Your task to perform on an android device: change the clock display to show seconds Image 0: 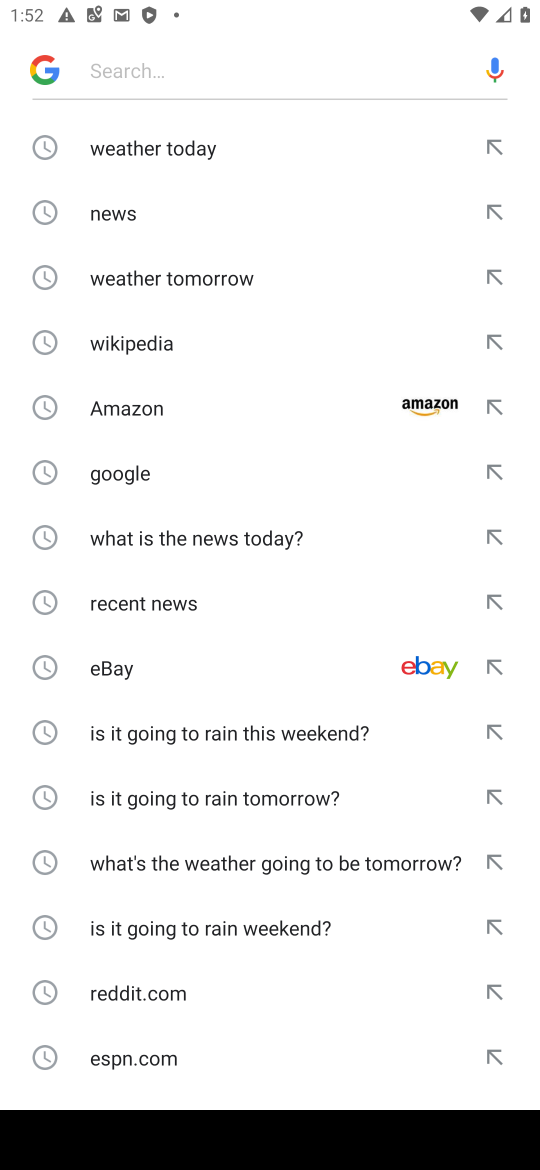
Step 0: press home button
Your task to perform on an android device: change the clock display to show seconds Image 1: 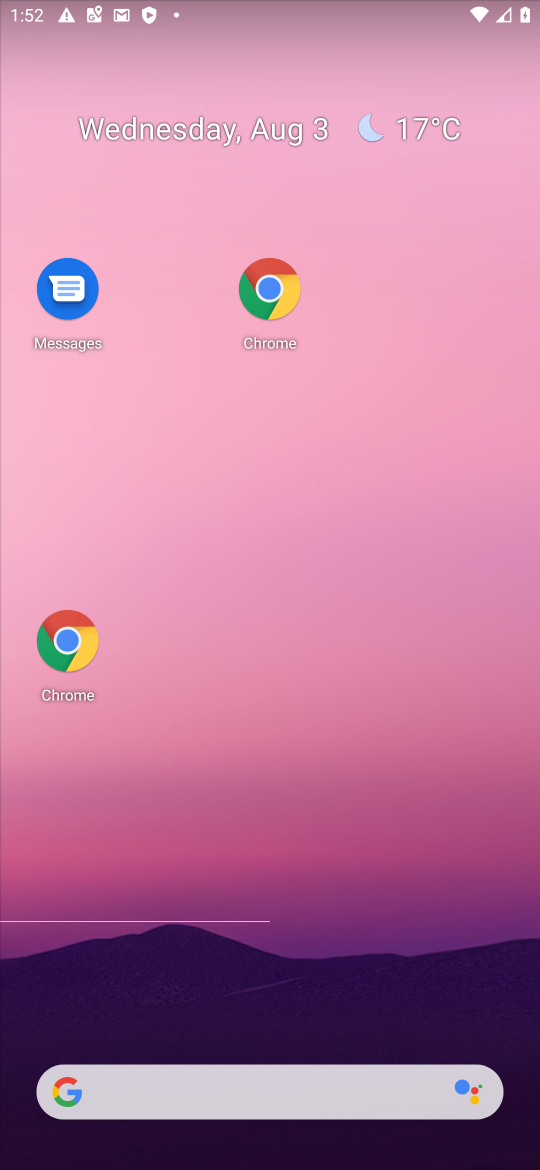
Step 1: drag from (302, 1043) to (304, 219)
Your task to perform on an android device: change the clock display to show seconds Image 2: 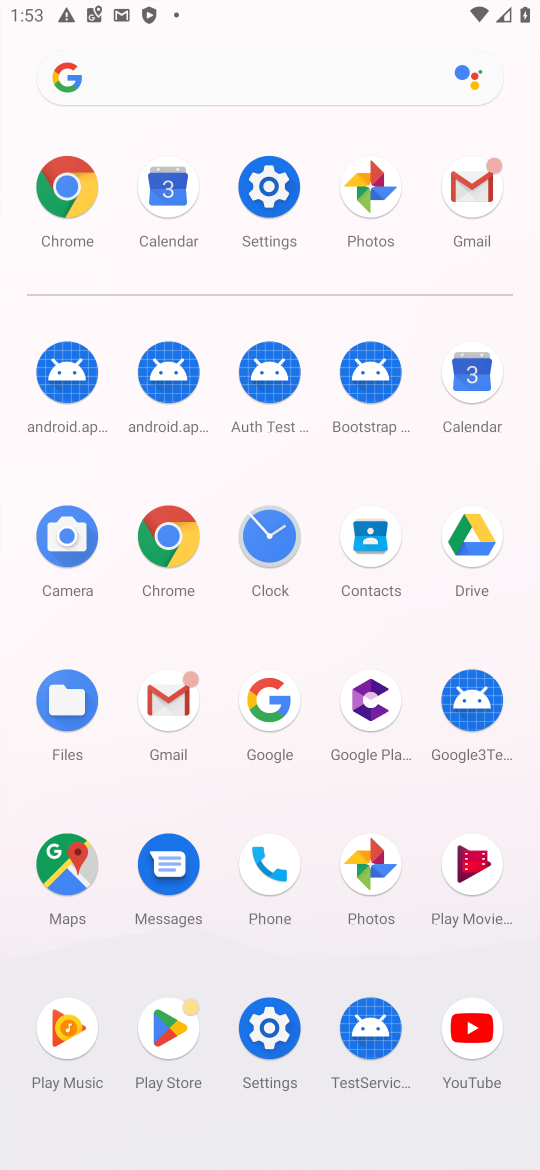
Step 2: click (290, 532)
Your task to perform on an android device: change the clock display to show seconds Image 3: 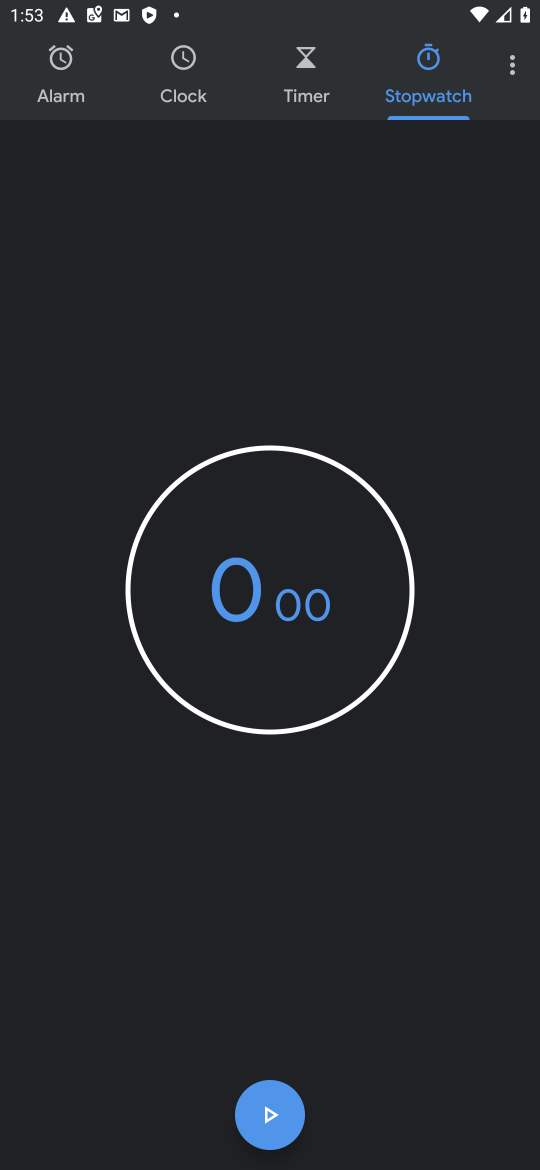
Step 3: click (504, 78)
Your task to perform on an android device: change the clock display to show seconds Image 4: 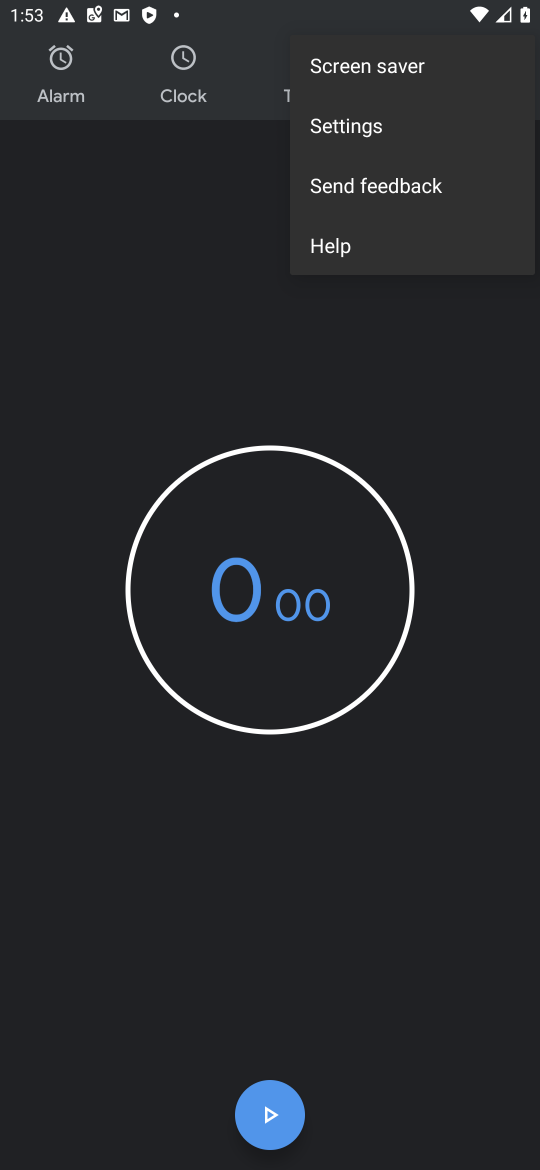
Step 4: click (340, 114)
Your task to perform on an android device: change the clock display to show seconds Image 5: 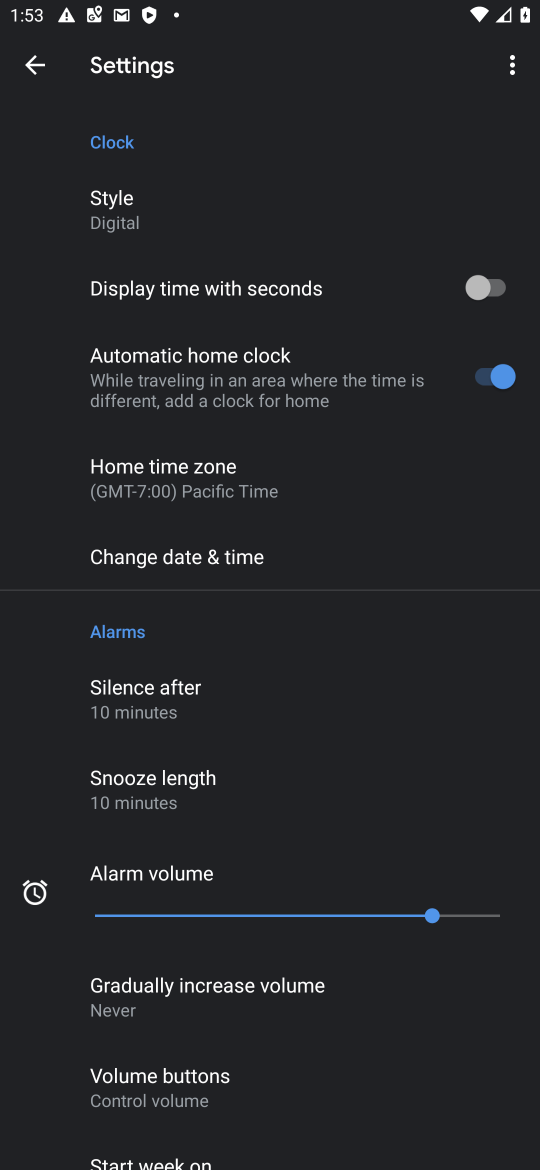
Step 5: click (153, 545)
Your task to perform on an android device: change the clock display to show seconds Image 6: 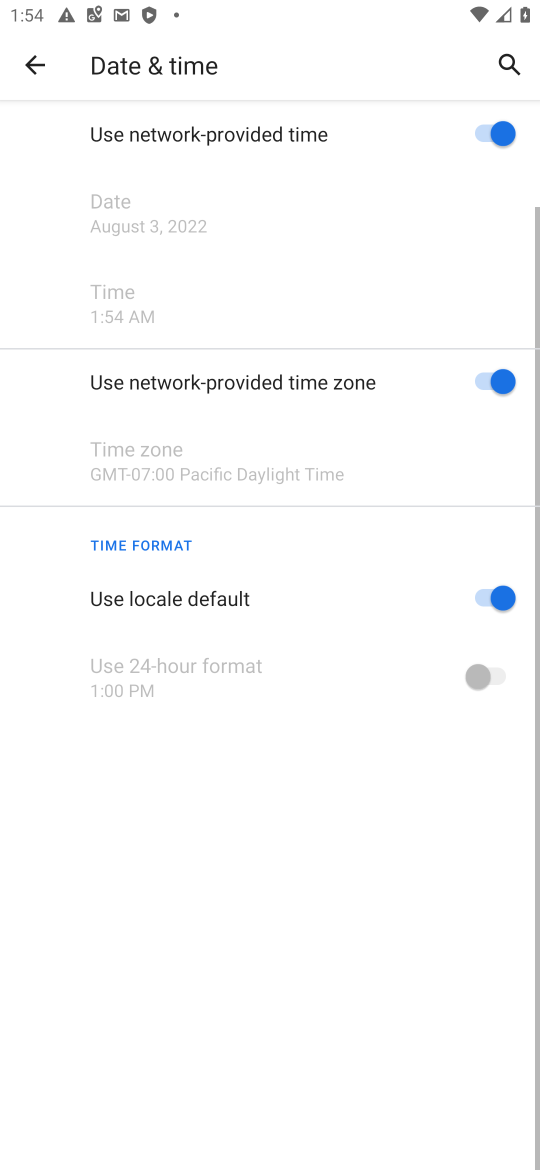
Step 6: task complete